Your task to perform on an android device: delete browsing data in the chrome app Image 0: 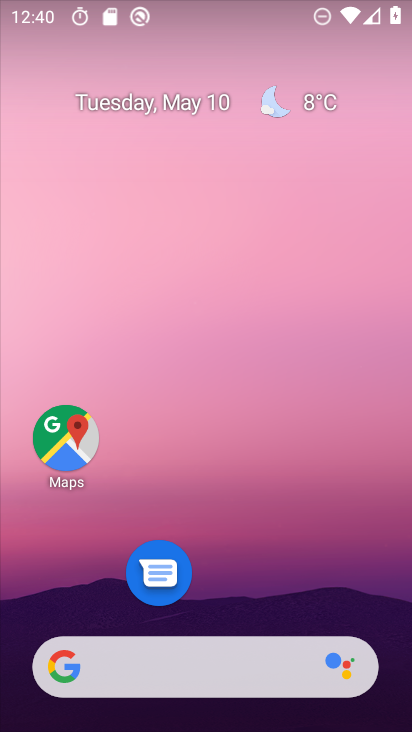
Step 0: drag from (241, 558) to (251, 30)
Your task to perform on an android device: delete browsing data in the chrome app Image 1: 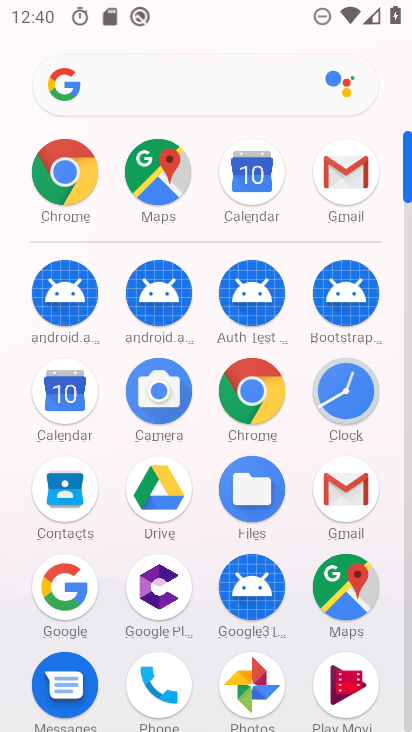
Step 1: click (76, 195)
Your task to perform on an android device: delete browsing data in the chrome app Image 2: 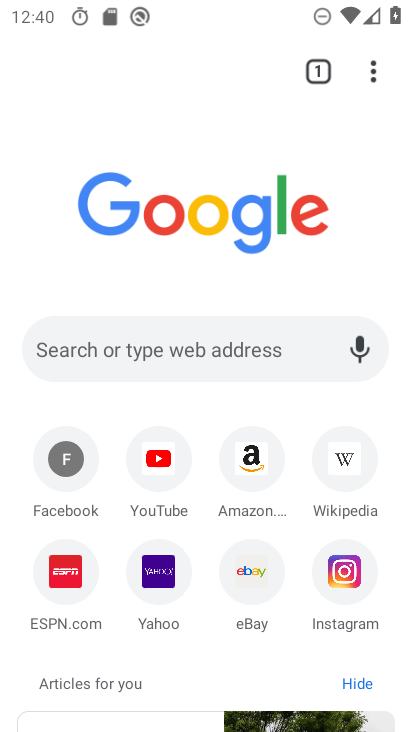
Step 2: click (377, 83)
Your task to perform on an android device: delete browsing data in the chrome app Image 3: 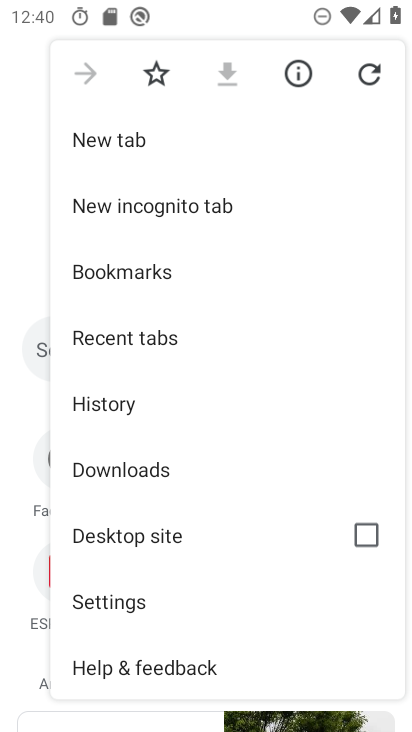
Step 3: click (126, 404)
Your task to perform on an android device: delete browsing data in the chrome app Image 4: 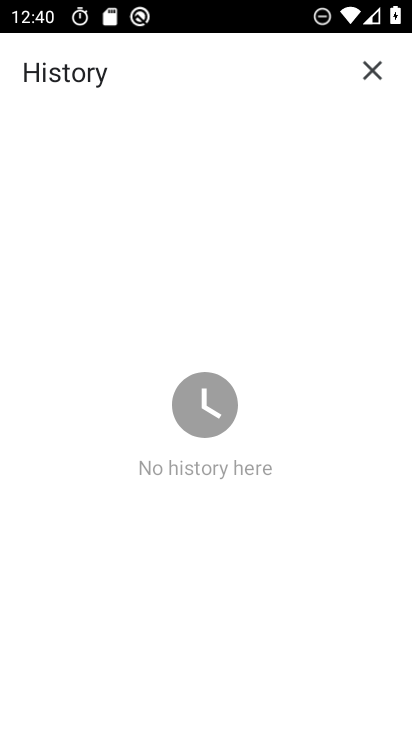
Step 4: task complete